Your task to perform on an android device: Open Google Maps Image 0: 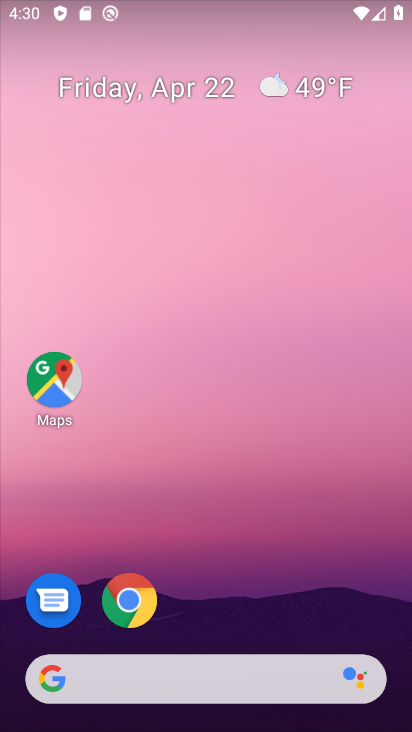
Step 0: click (58, 379)
Your task to perform on an android device: Open Google Maps Image 1: 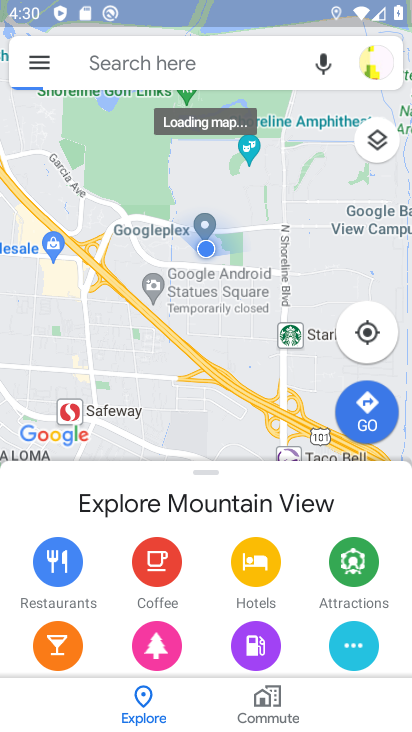
Step 1: task complete